Your task to perform on an android device: Open the map Image 0: 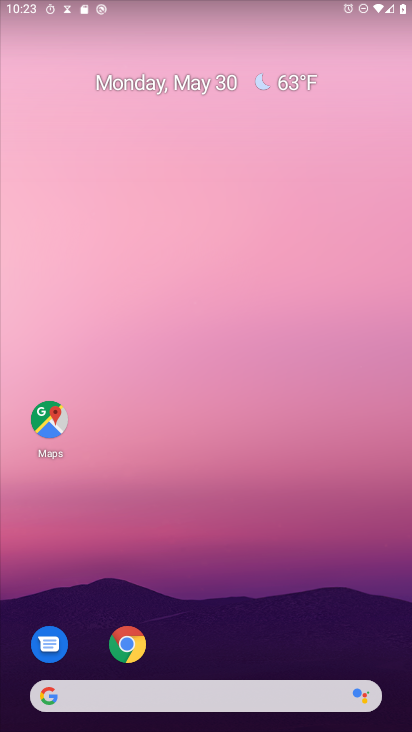
Step 0: drag from (216, 635) to (246, 58)
Your task to perform on an android device: Open the map Image 1: 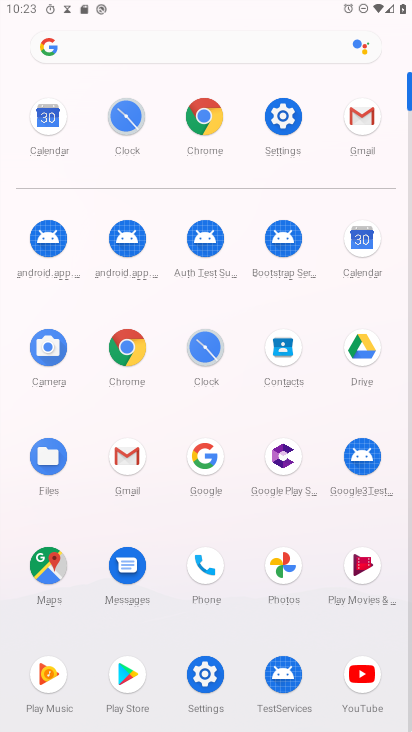
Step 1: click (49, 566)
Your task to perform on an android device: Open the map Image 2: 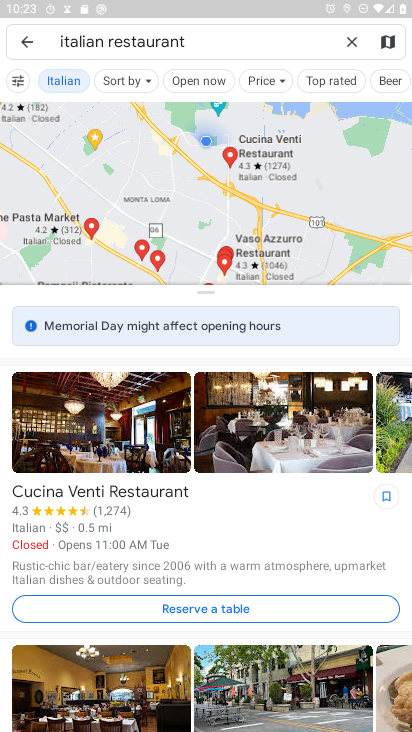
Step 2: task complete